Your task to perform on an android device: Open Amazon Image 0: 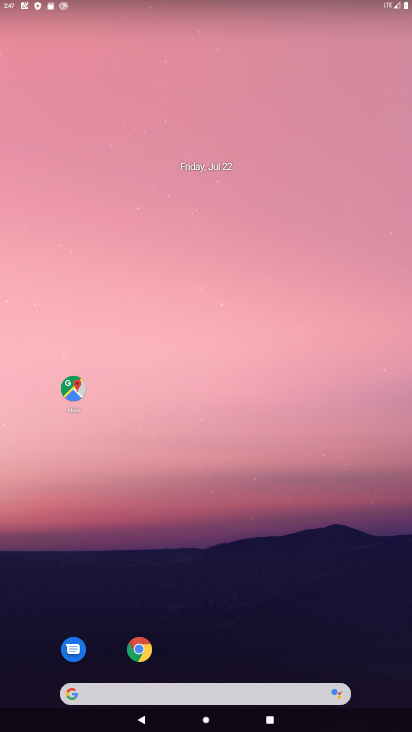
Step 0: click (236, 247)
Your task to perform on an android device: Open Amazon Image 1: 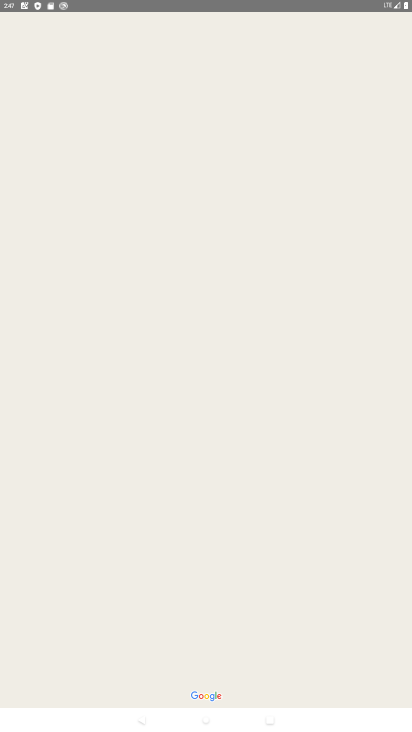
Step 1: drag from (180, 637) to (254, 132)
Your task to perform on an android device: Open Amazon Image 2: 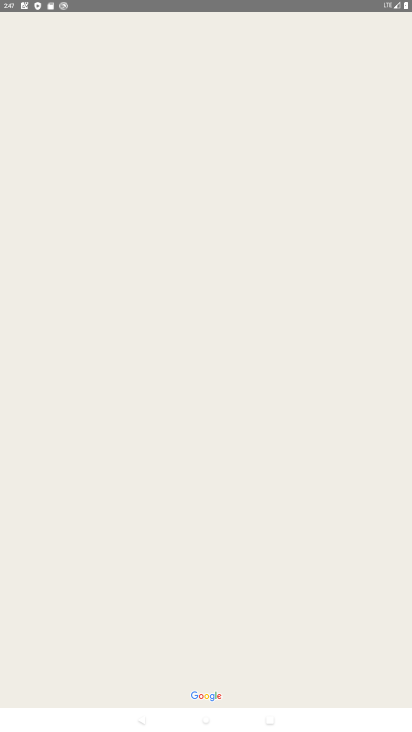
Step 2: press home button
Your task to perform on an android device: Open Amazon Image 3: 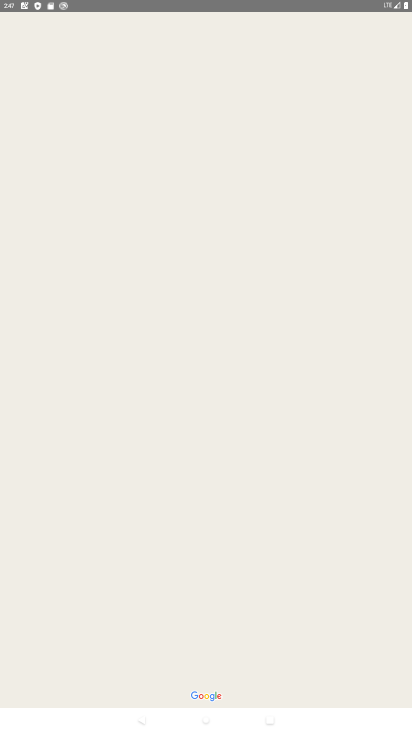
Step 3: press home button
Your task to perform on an android device: Open Amazon Image 4: 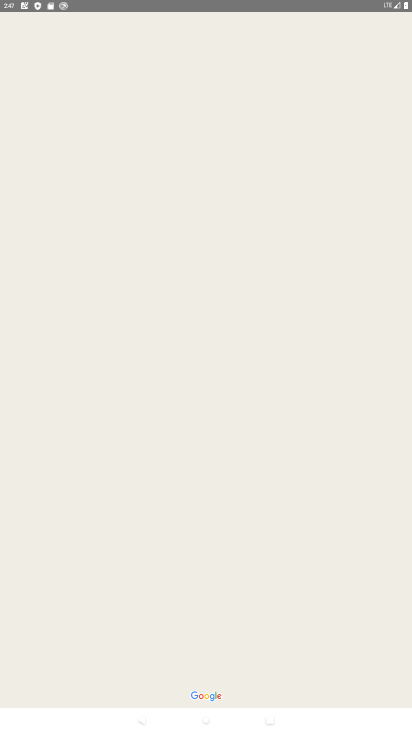
Step 4: drag from (226, 483) to (267, 212)
Your task to perform on an android device: Open Amazon Image 5: 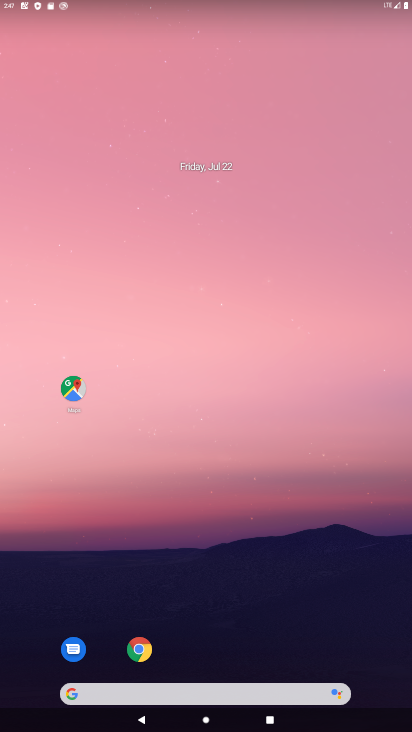
Step 5: drag from (195, 658) to (230, 263)
Your task to perform on an android device: Open Amazon Image 6: 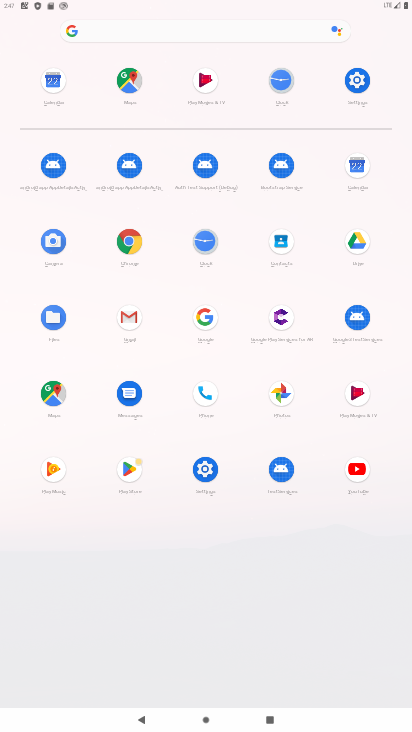
Step 6: click (129, 236)
Your task to perform on an android device: Open Amazon Image 7: 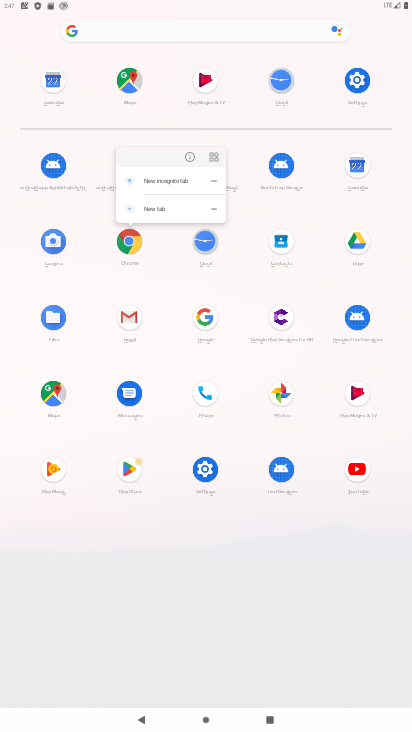
Step 7: click (189, 150)
Your task to perform on an android device: Open Amazon Image 8: 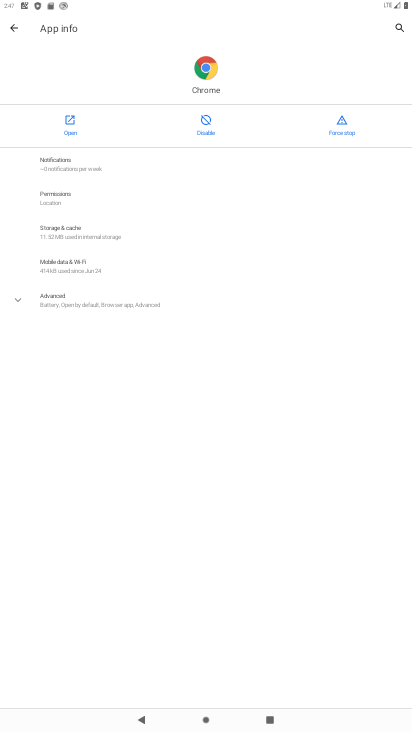
Step 8: click (69, 126)
Your task to perform on an android device: Open Amazon Image 9: 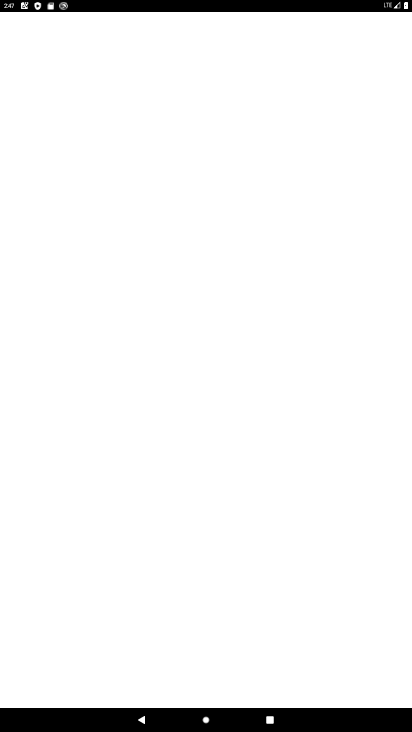
Step 9: drag from (206, 591) to (261, 136)
Your task to perform on an android device: Open Amazon Image 10: 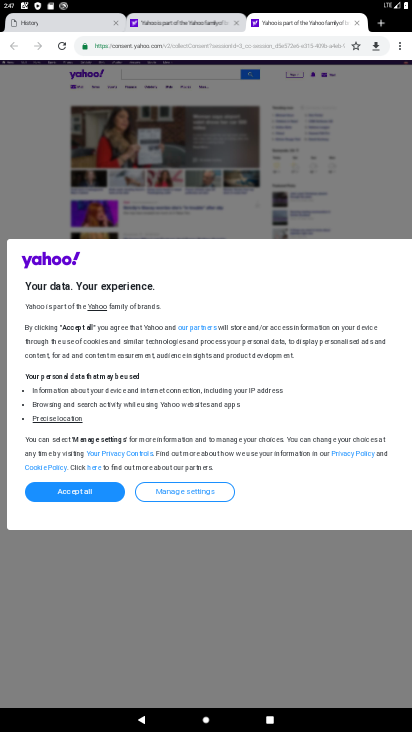
Step 10: drag from (252, 150) to (314, 606)
Your task to perform on an android device: Open Amazon Image 11: 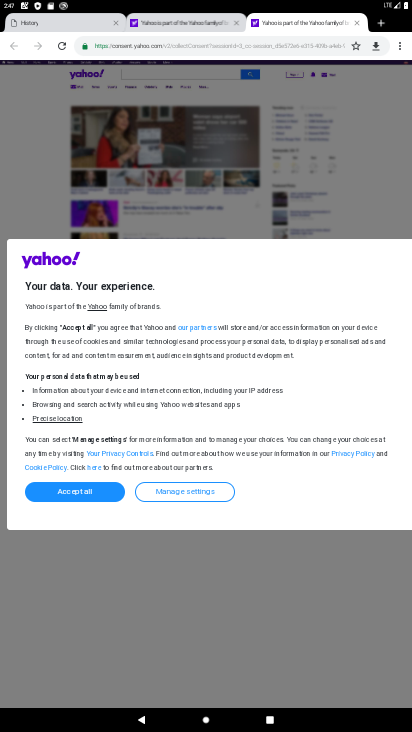
Step 11: click (352, 21)
Your task to perform on an android device: Open Amazon Image 12: 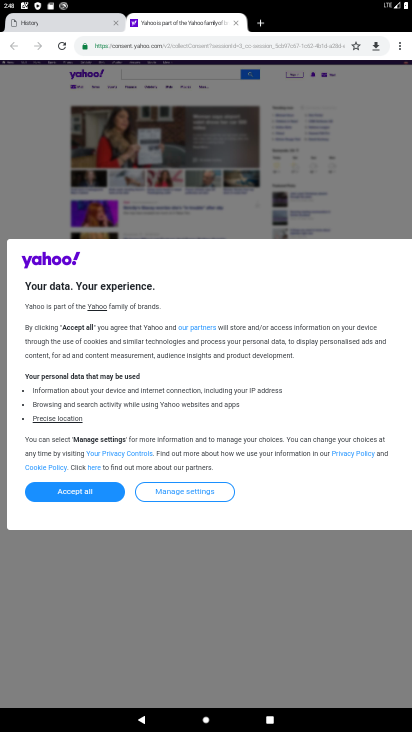
Step 12: click (266, 23)
Your task to perform on an android device: Open Amazon Image 13: 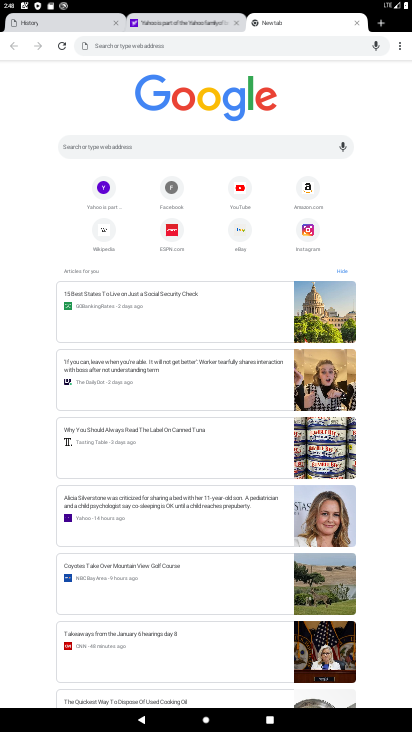
Step 13: click (295, 192)
Your task to perform on an android device: Open Amazon Image 14: 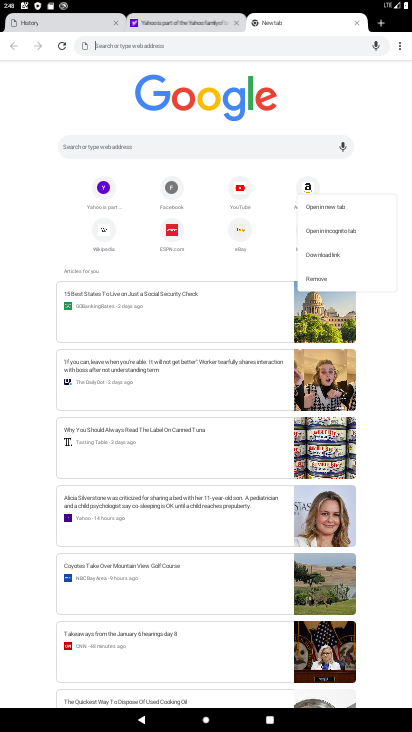
Step 14: click (411, 123)
Your task to perform on an android device: Open Amazon Image 15: 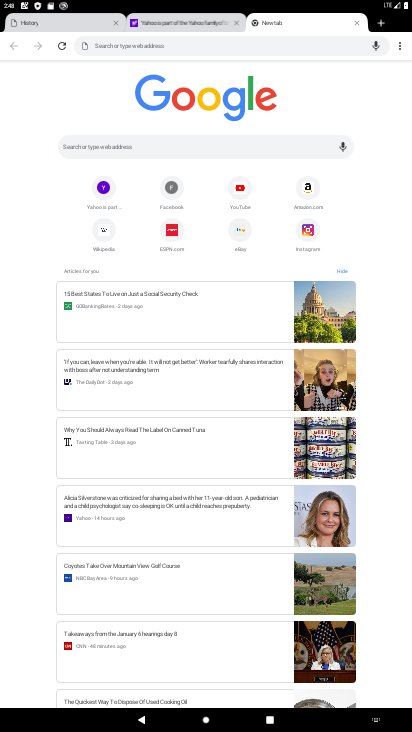
Step 15: click (312, 192)
Your task to perform on an android device: Open Amazon Image 16: 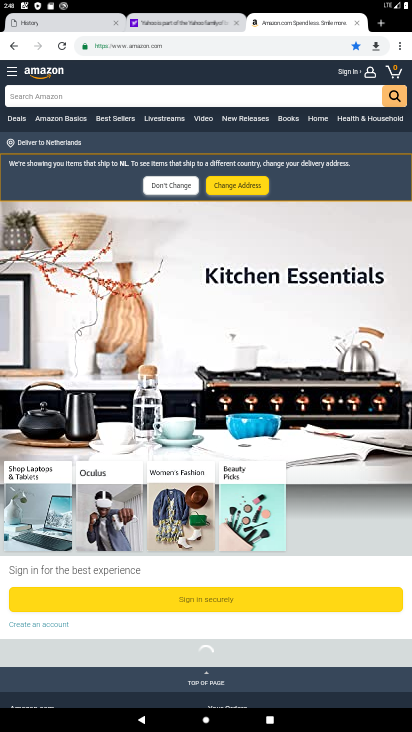
Step 16: task complete